Your task to perform on an android device: Go to ESPN.com Image 0: 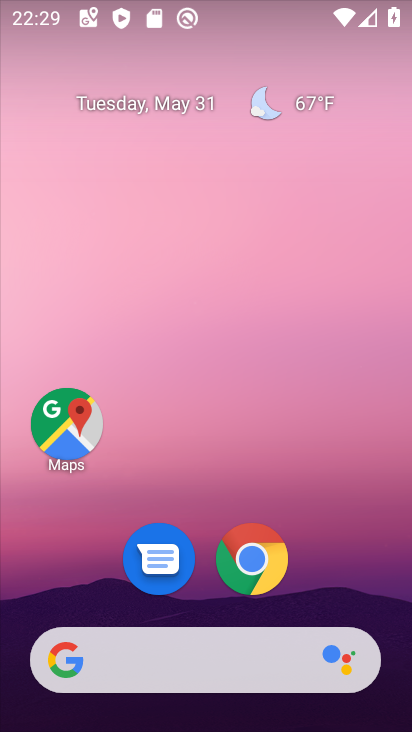
Step 0: drag from (326, 566) to (274, 109)
Your task to perform on an android device: Go to ESPN.com Image 1: 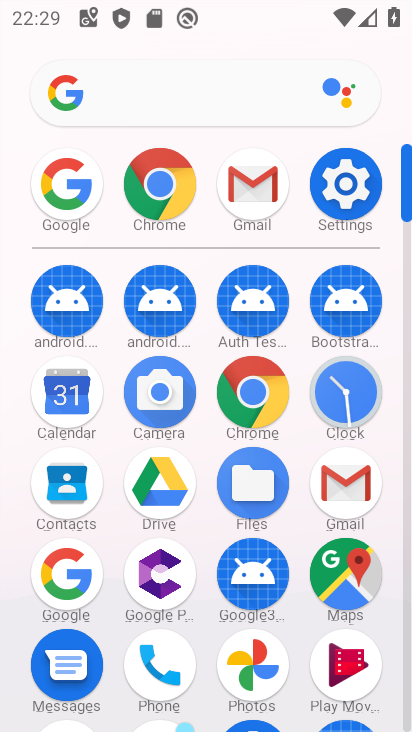
Step 1: click (63, 578)
Your task to perform on an android device: Go to ESPN.com Image 2: 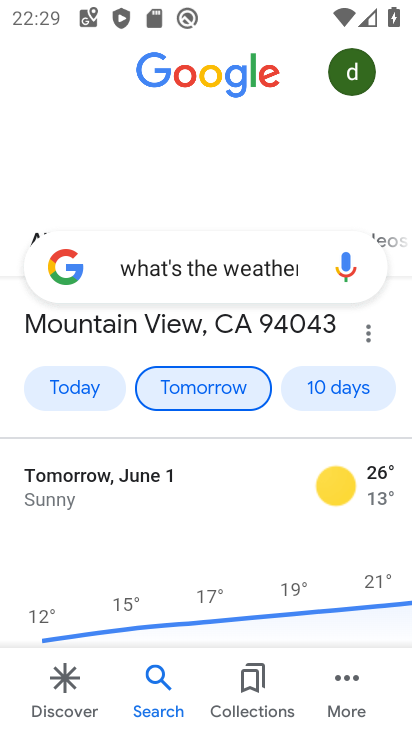
Step 2: click (300, 268)
Your task to perform on an android device: Go to ESPN.com Image 3: 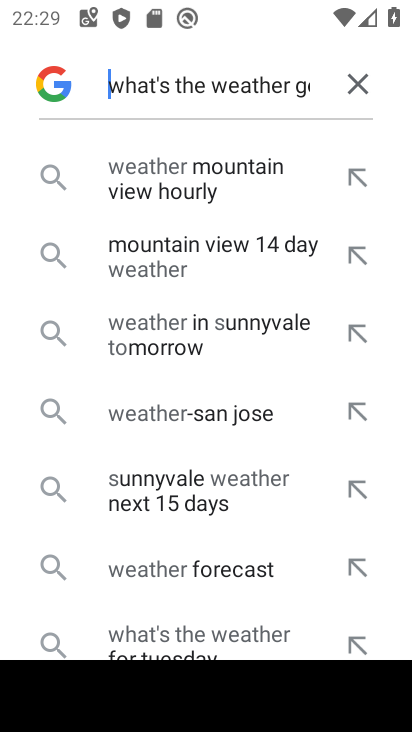
Step 3: click (355, 79)
Your task to perform on an android device: Go to ESPN.com Image 4: 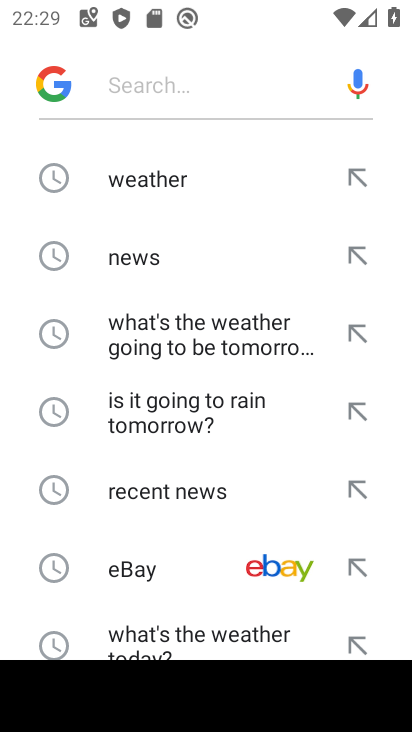
Step 4: drag from (155, 542) to (171, 123)
Your task to perform on an android device: Go to ESPN.com Image 5: 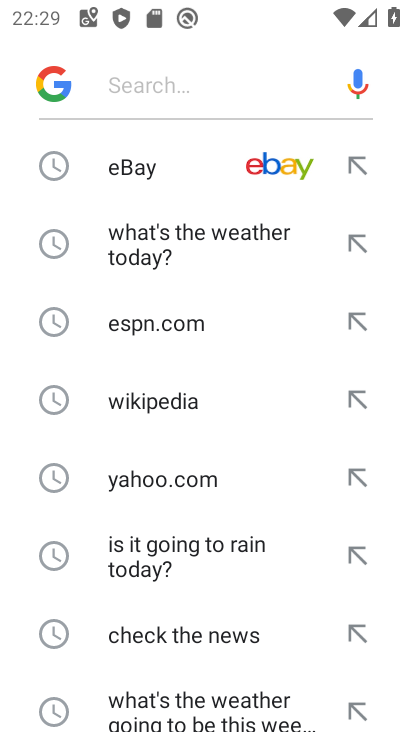
Step 5: drag from (207, 597) to (200, 507)
Your task to perform on an android device: Go to ESPN.com Image 6: 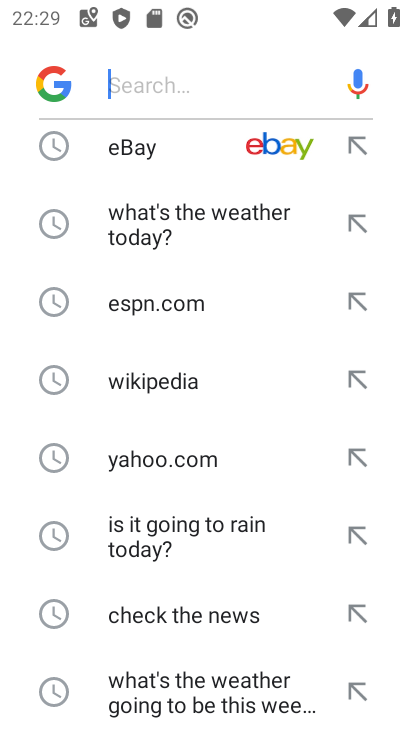
Step 6: click (148, 299)
Your task to perform on an android device: Go to ESPN.com Image 7: 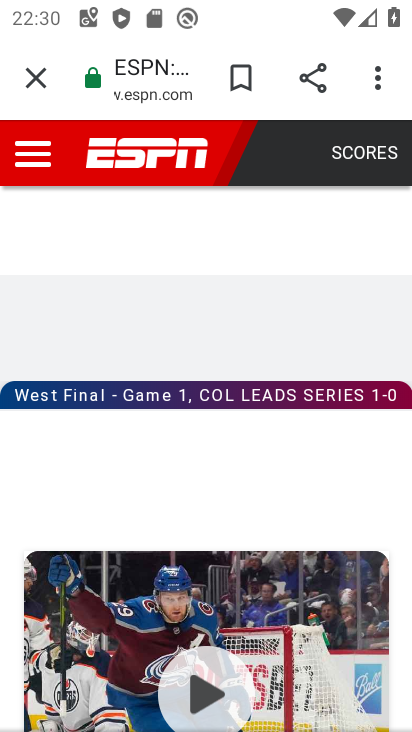
Step 7: task complete